Your task to perform on an android device: find which apps use the phone's location Image 0: 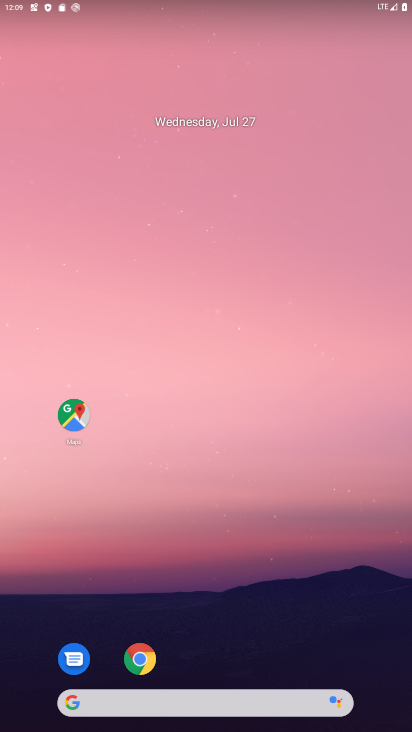
Step 0: drag from (183, 672) to (198, 92)
Your task to perform on an android device: find which apps use the phone's location Image 1: 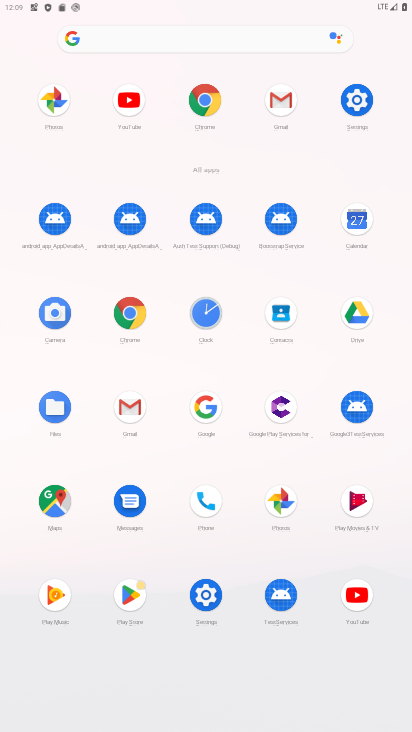
Step 1: click (348, 113)
Your task to perform on an android device: find which apps use the phone's location Image 2: 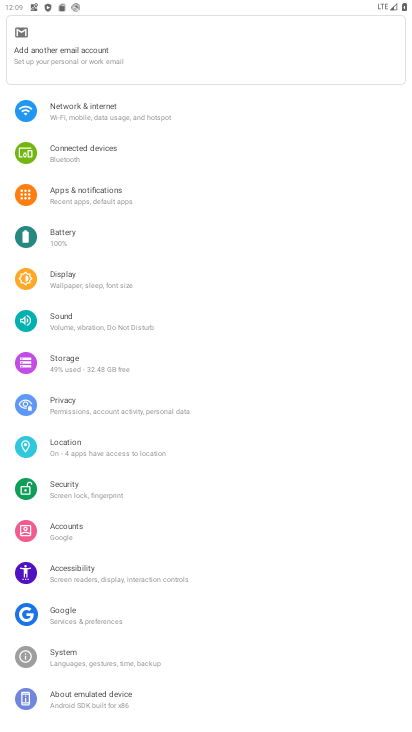
Step 2: click (69, 430)
Your task to perform on an android device: find which apps use the phone's location Image 3: 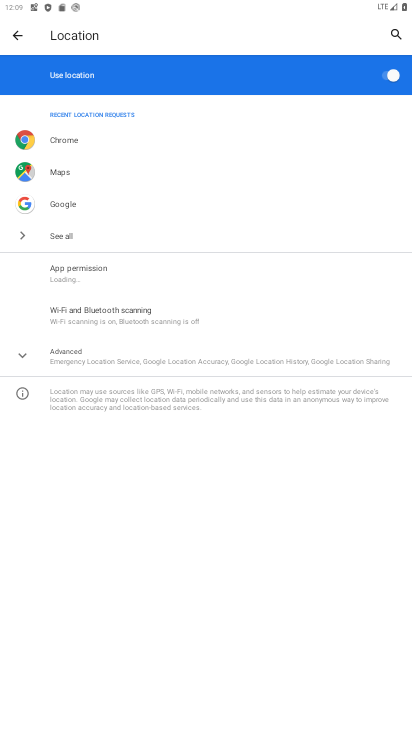
Step 3: click (67, 239)
Your task to perform on an android device: find which apps use the phone's location Image 4: 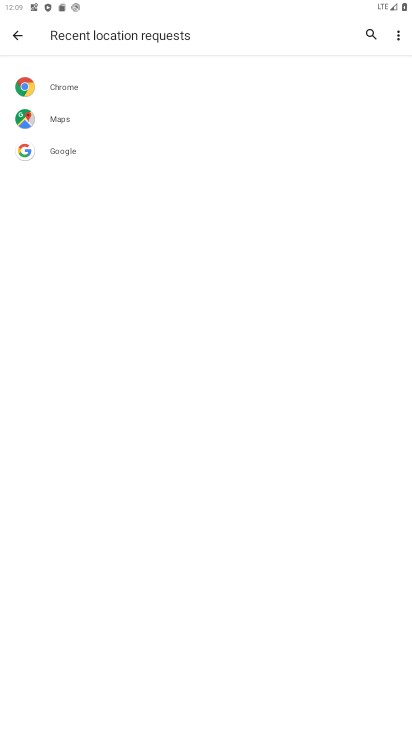
Step 4: click (12, 32)
Your task to perform on an android device: find which apps use the phone's location Image 5: 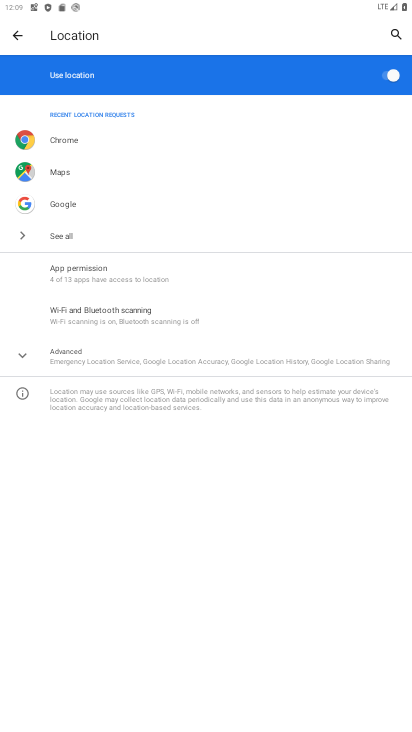
Step 5: click (75, 271)
Your task to perform on an android device: find which apps use the phone's location Image 6: 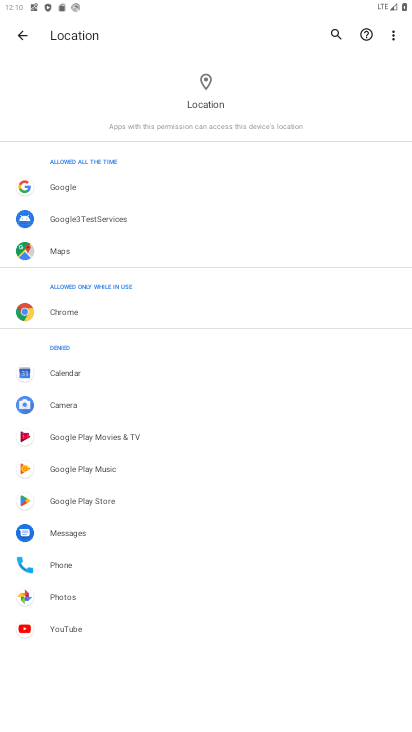
Step 6: click (111, 287)
Your task to perform on an android device: find which apps use the phone's location Image 7: 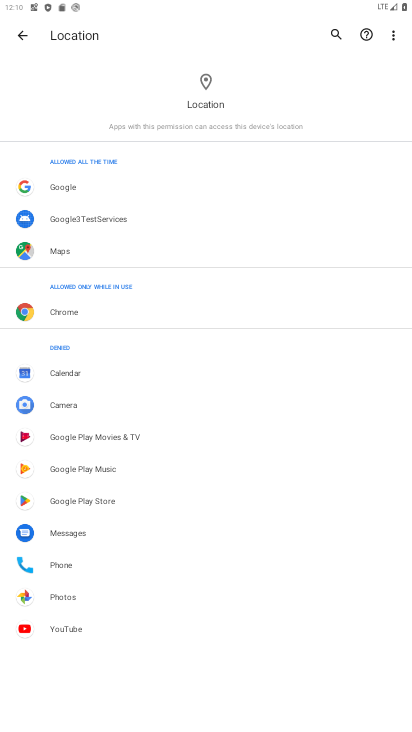
Step 7: task complete